Your task to perform on an android device: Open the calendar app, open the side menu, and click the "Day" option Image 0: 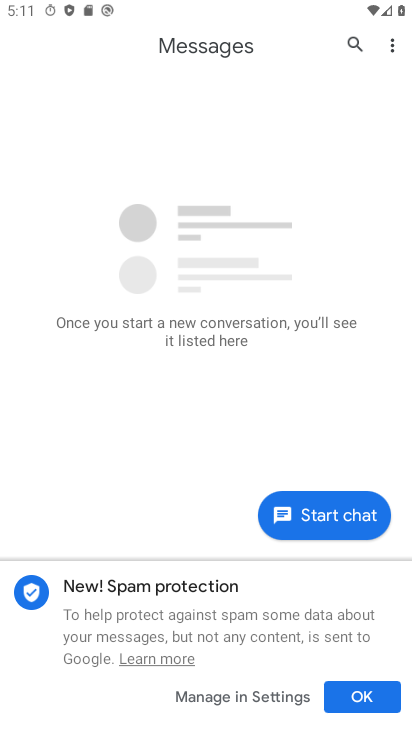
Step 0: press back button
Your task to perform on an android device: Open the calendar app, open the side menu, and click the "Day" option Image 1: 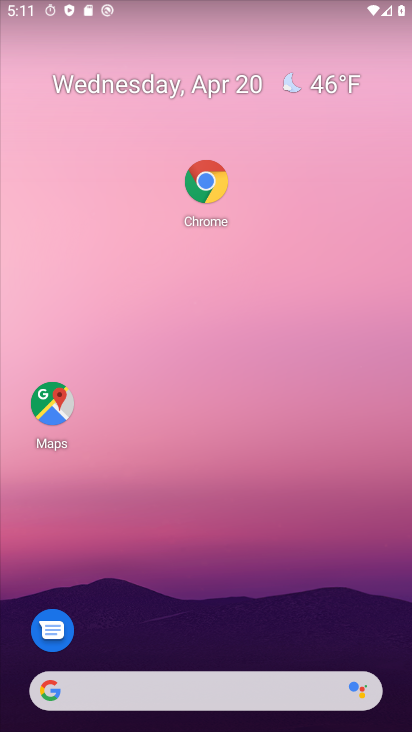
Step 1: drag from (150, 669) to (257, 91)
Your task to perform on an android device: Open the calendar app, open the side menu, and click the "Day" option Image 2: 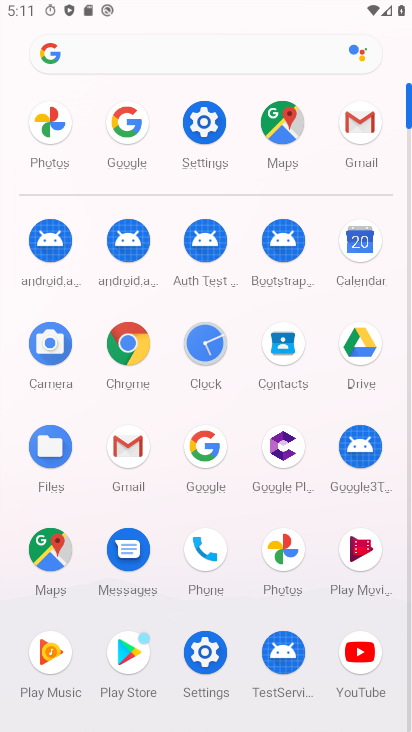
Step 2: click (364, 233)
Your task to perform on an android device: Open the calendar app, open the side menu, and click the "Day" option Image 3: 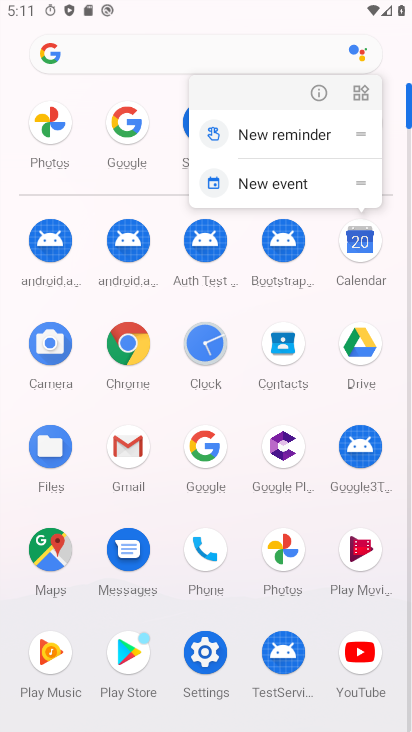
Step 3: click (363, 251)
Your task to perform on an android device: Open the calendar app, open the side menu, and click the "Day" option Image 4: 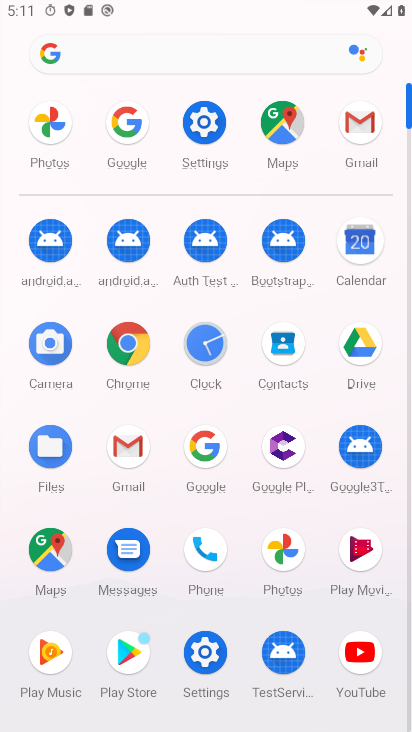
Step 4: click (362, 245)
Your task to perform on an android device: Open the calendar app, open the side menu, and click the "Day" option Image 5: 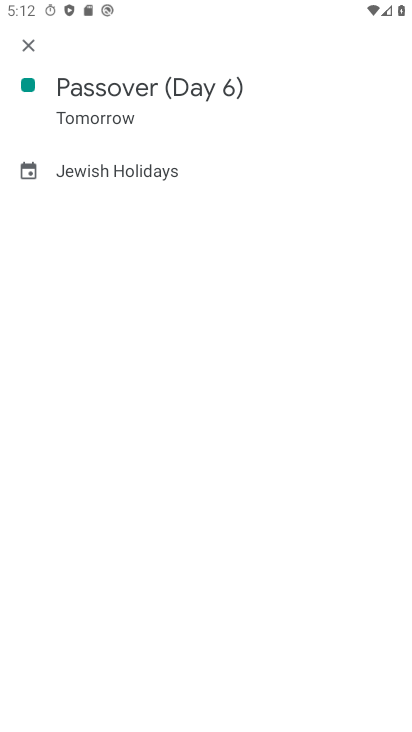
Step 5: click (34, 39)
Your task to perform on an android device: Open the calendar app, open the side menu, and click the "Day" option Image 6: 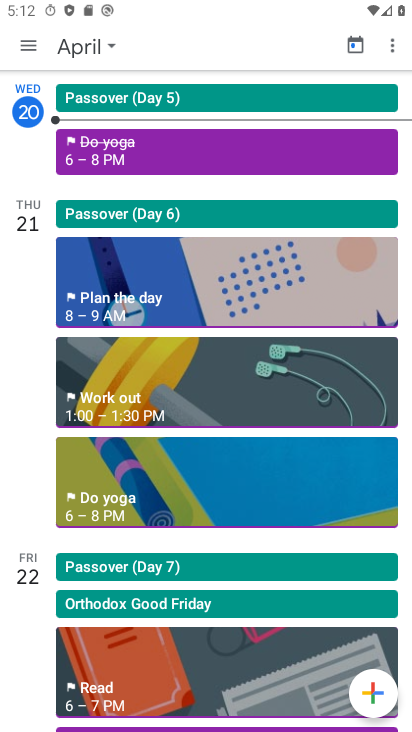
Step 6: click (26, 44)
Your task to perform on an android device: Open the calendar app, open the side menu, and click the "Day" option Image 7: 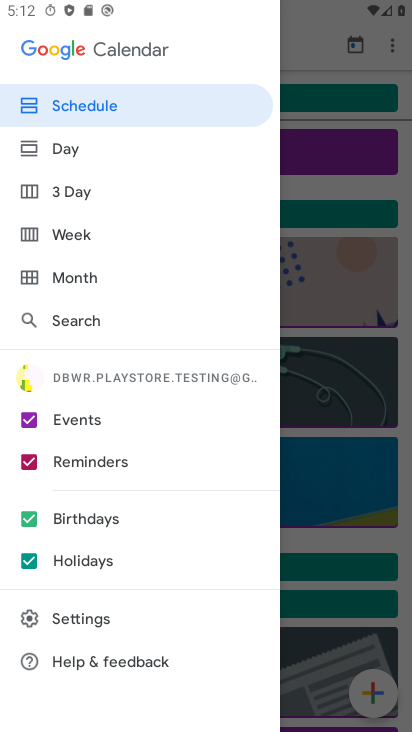
Step 7: click (32, 48)
Your task to perform on an android device: Open the calendar app, open the side menu, and click the "Day" option Image 8: 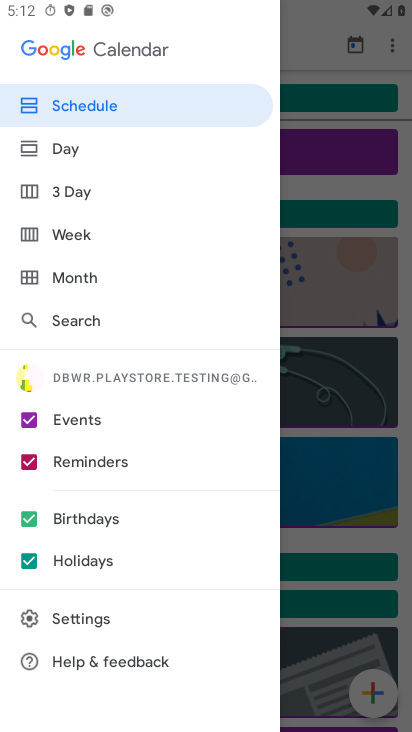
Step 8: click (63, 154)
Your task to perform on an android device: Open the calendar app, open the side menu, and click the "Day" option Image 9: 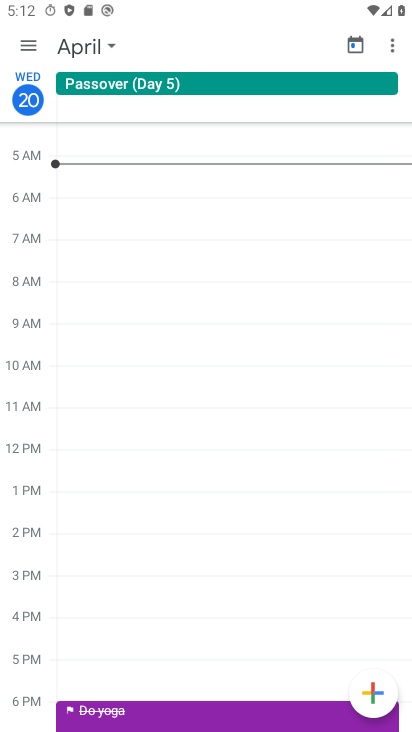
Step 9: task complete